Your task to perform on an android device: install app "Expedia: Hotels, Flights & Car" Image 0: 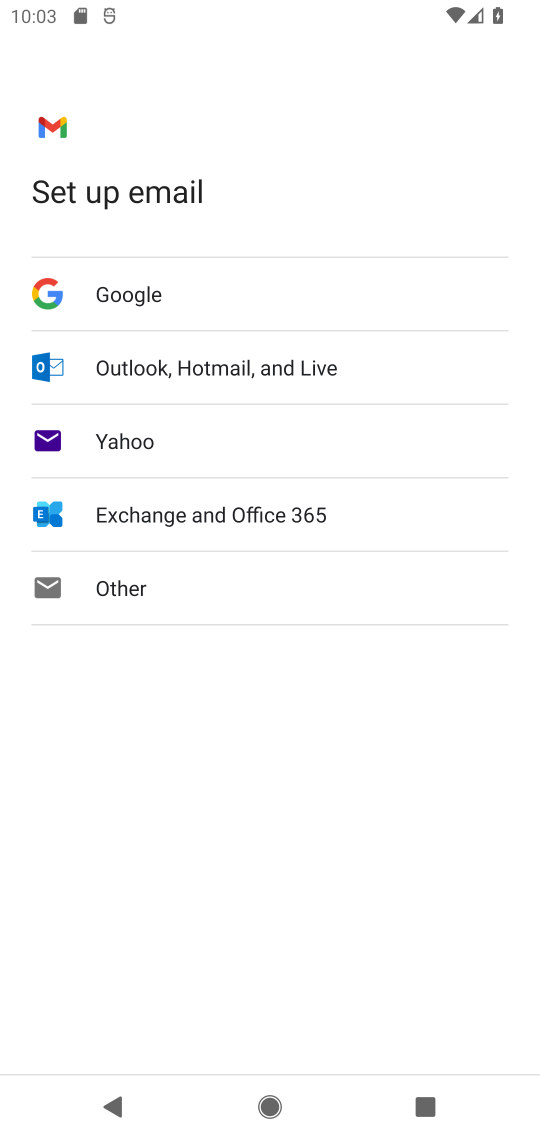
Step 0: press home button
Your task to perform on an android device: install app "Expedia: Hotels, Flights & Car" Image 1: 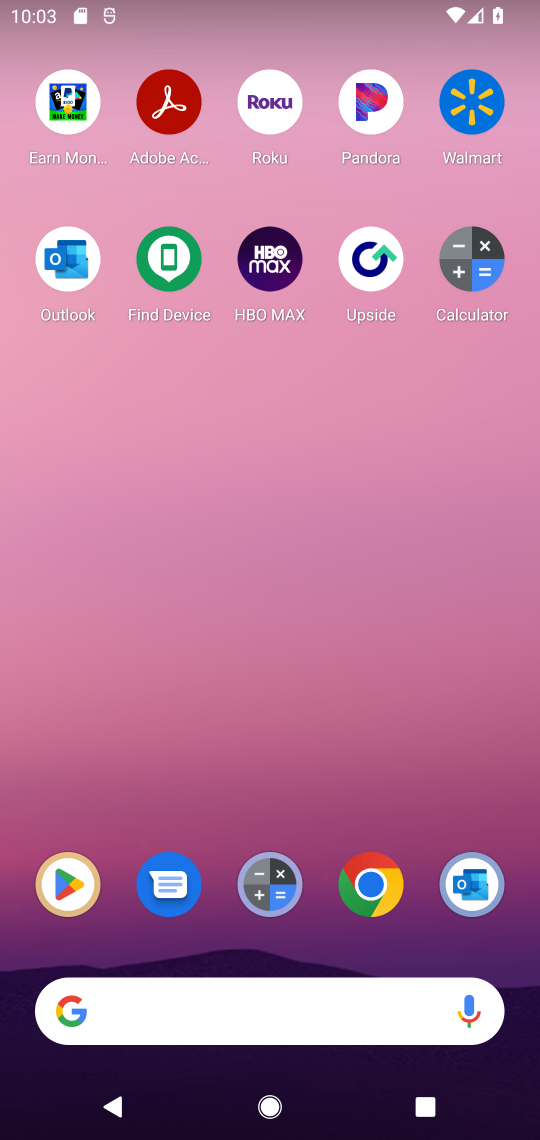
Step 1: click (73, 884)
Your task to perform on an android device: install app "Expedia: Hotels, Flights & Car" Image 2: 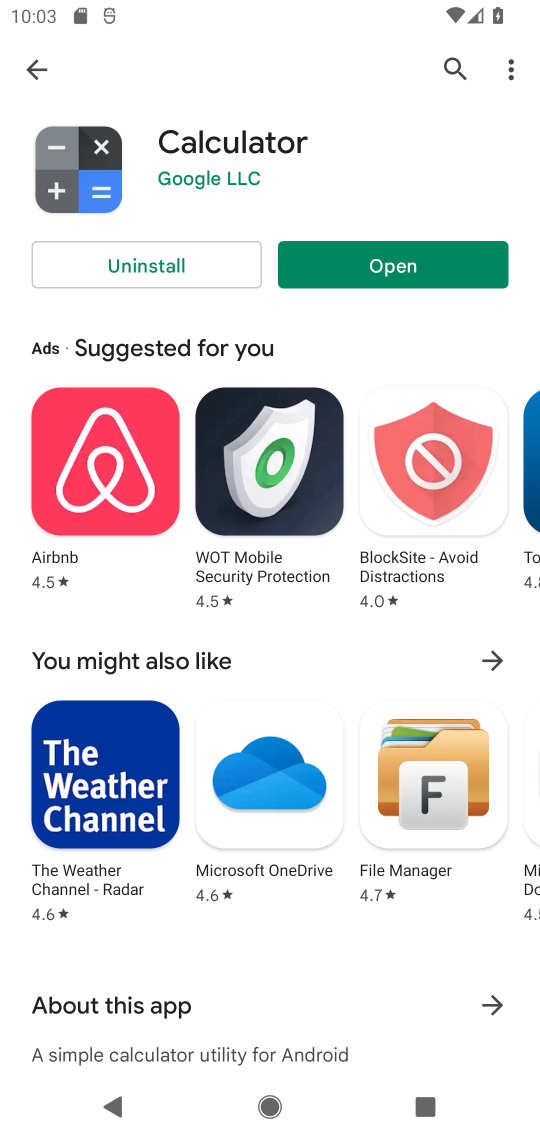
Step 2: click (26, 61)
Your task to perform on an android device: install app "Expedia: Hotels, Flights & Car" Image 3: 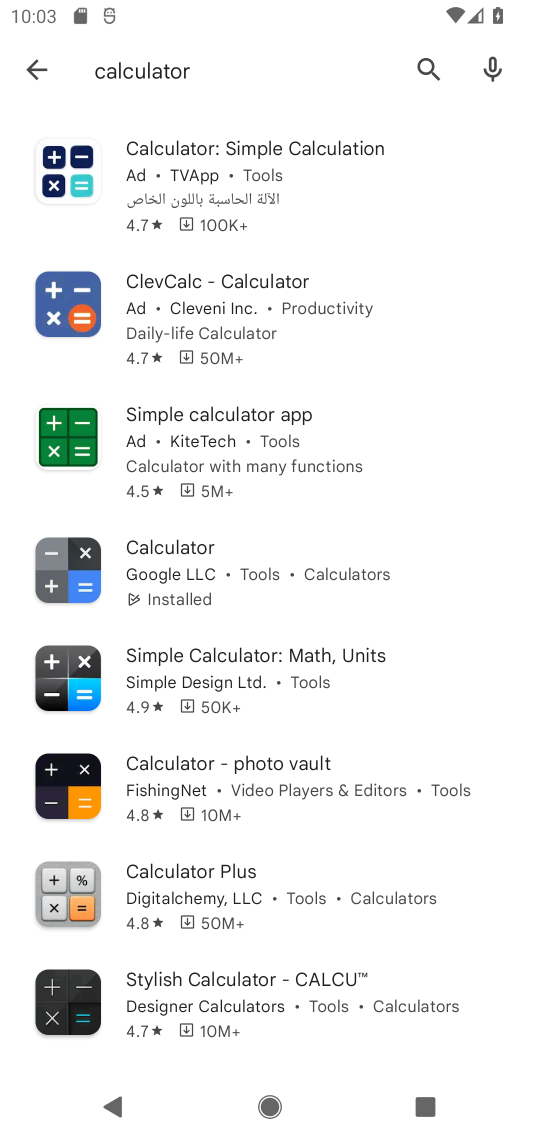
Step 3: click (199, 77)
Your task to perform on an android device: install app "Expedia: Hotels, Flights & Car" Image 4: 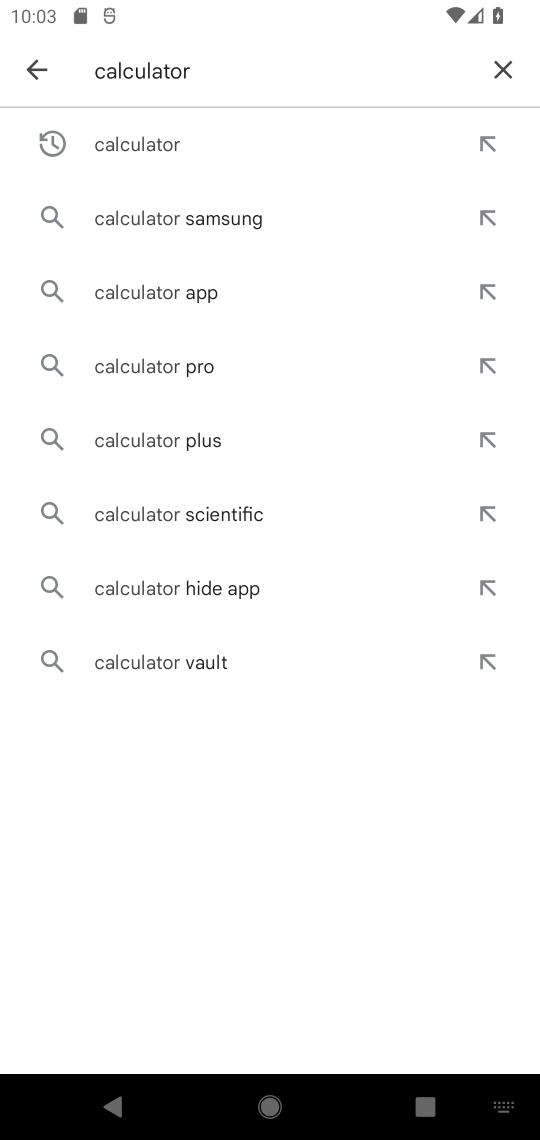
Step 4: click (499, 62)
Your task to perform on an android device: install app "Expedia: Hotels, Flights & Car" Image 5: 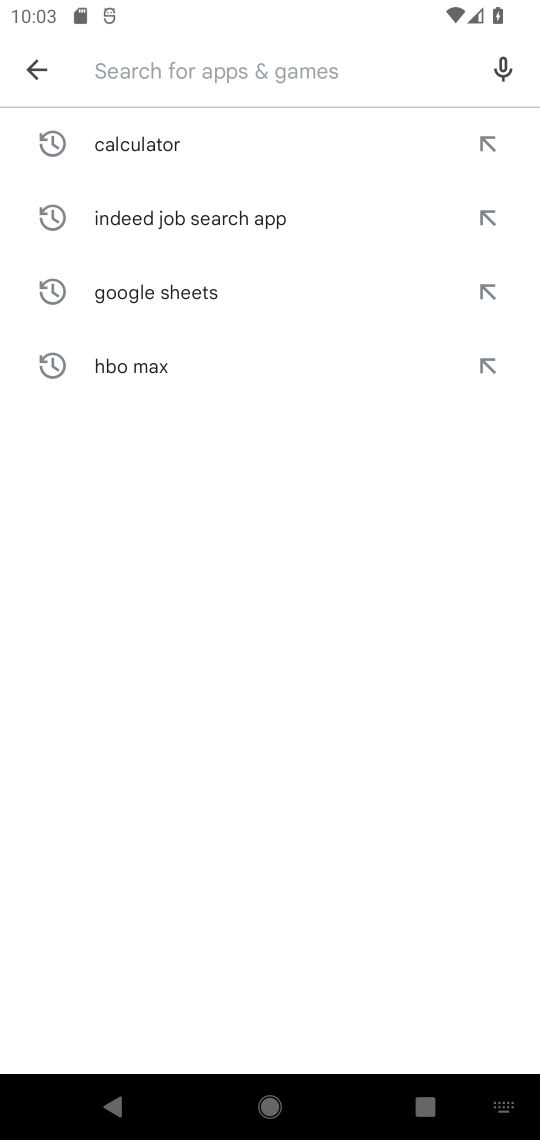
Step 5: type "expedia"
Your task to perform on an android device: install app "Expedia: Hotels, Flights & Car" Image 6: 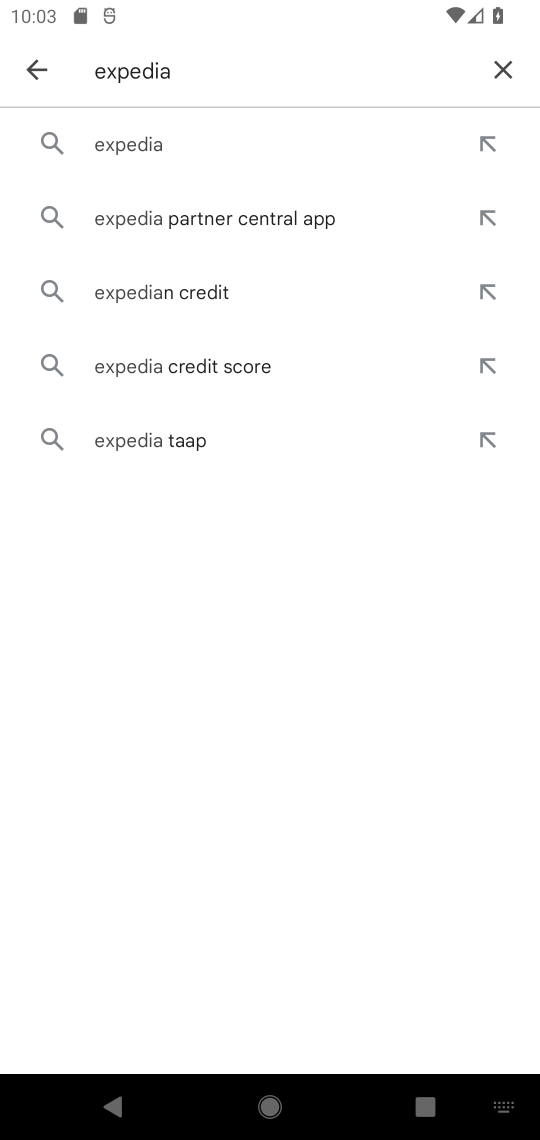
Step 6: click (142, 160)
Your task to perform on an android device: install app "Expedia: Hotels, Flights & Car" Image 7: 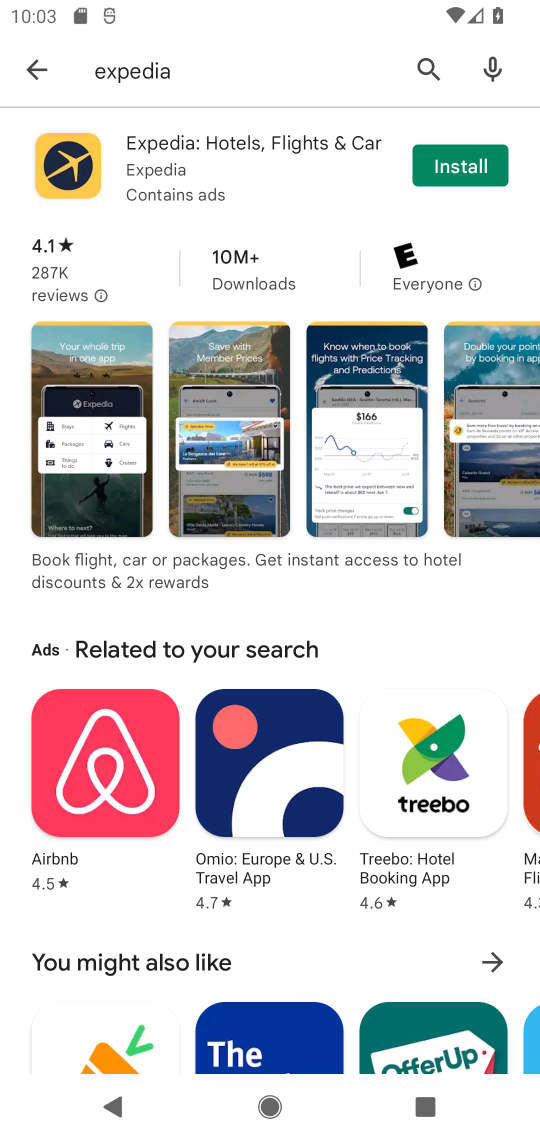
Step 7: click (466, 165)
Your task to perform on an android device: install app "Expedia: Hotels, Flights & Car" Image 8: 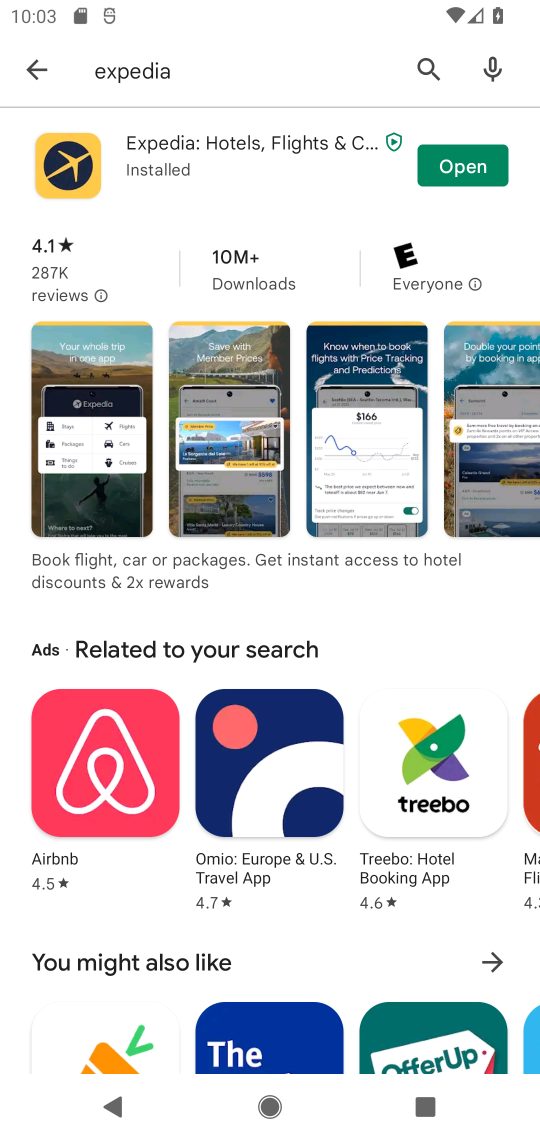
Step 8: click (466, 167)
Your task to perform on an android device: install app "Expedia: Hotels, Flights & Car" Image 9: 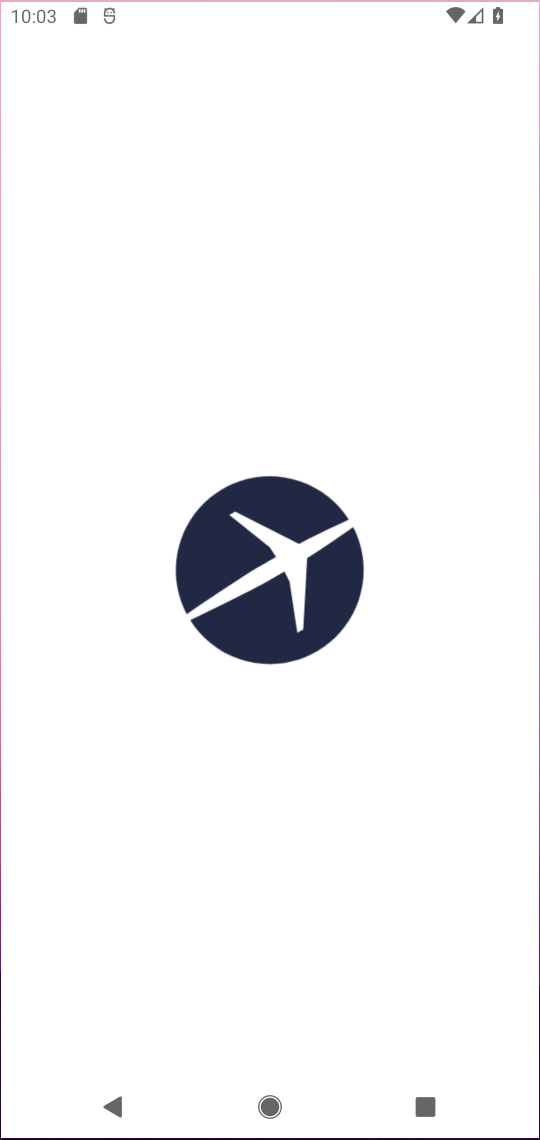
Step 9: task complete